Your task to perform on an android device: Open Google Chrome and open the bookmarks view Image 0: 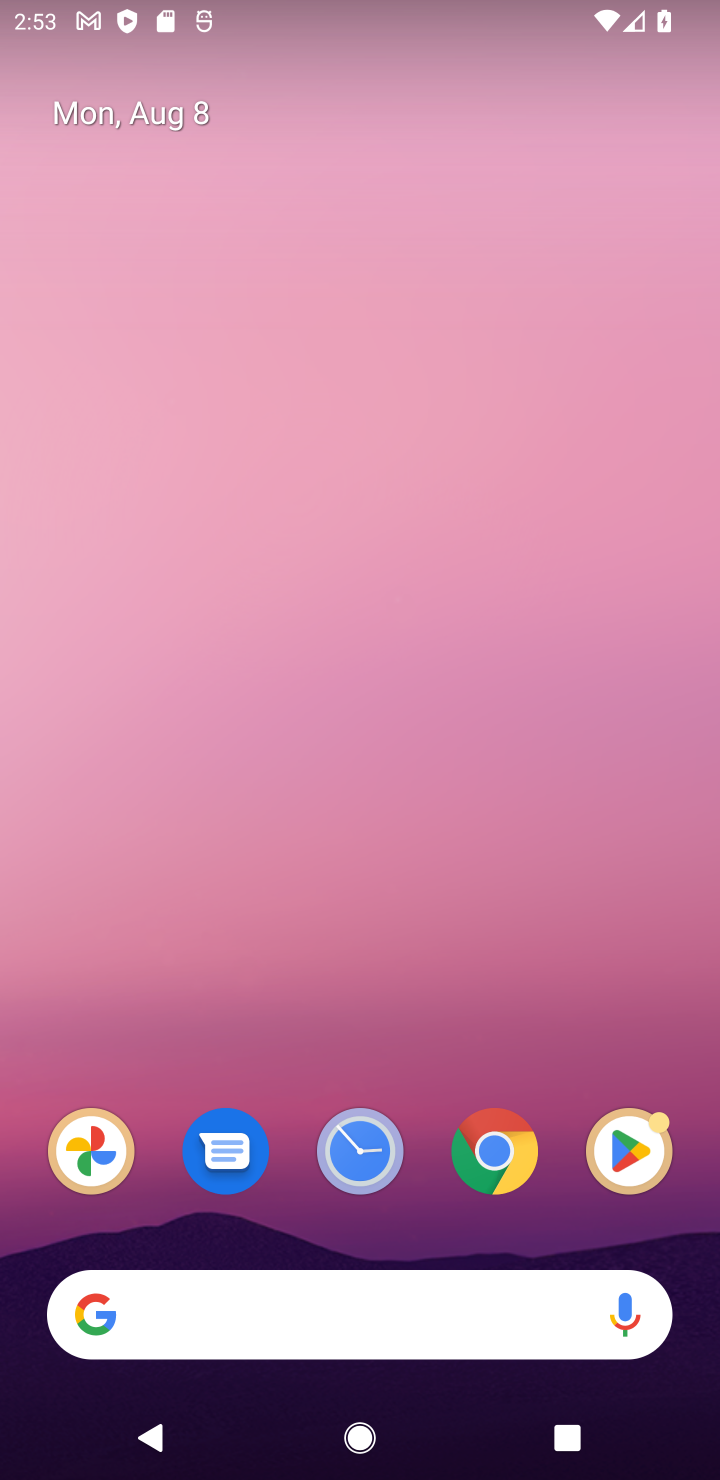
Step 0: press home button
Your task to perform on an android device: Open Google Chrome and open the bookmarks view Image 1: 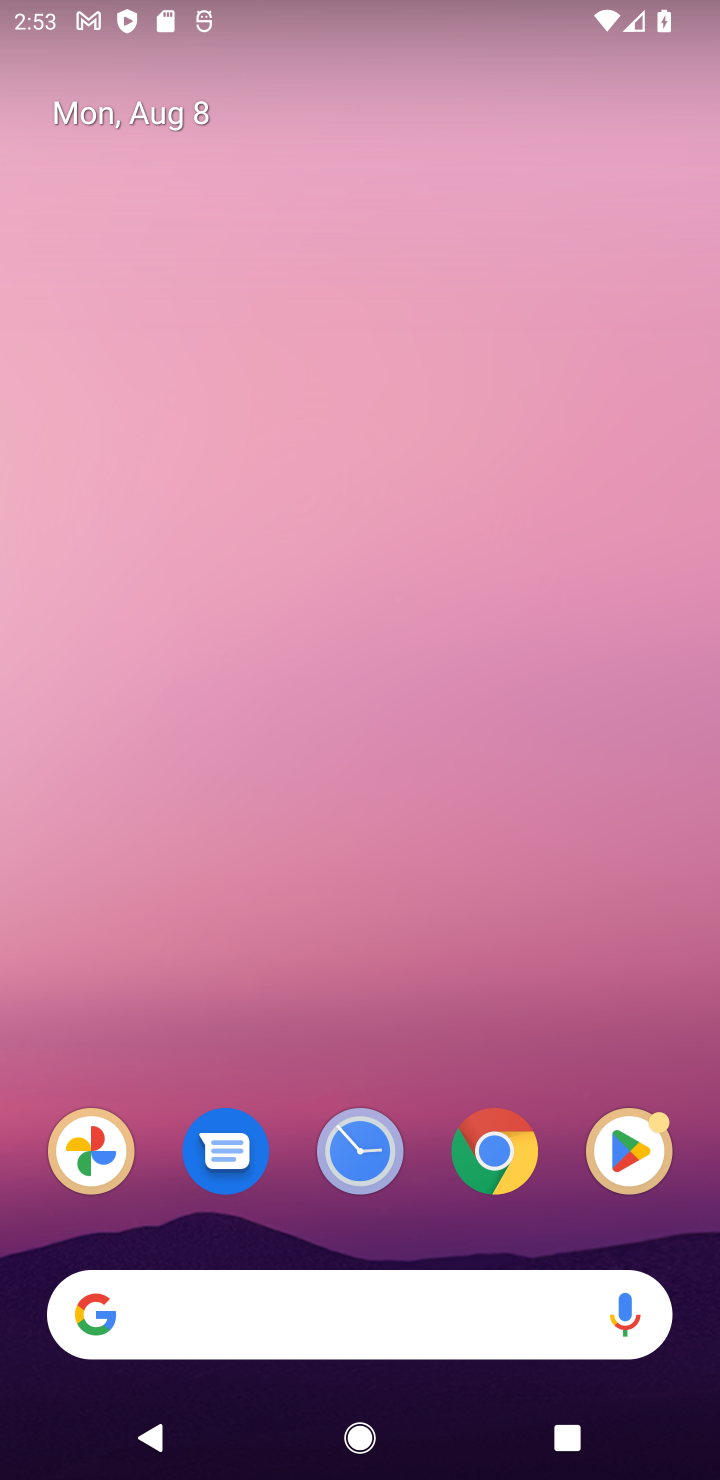
Step 1: click (498, 1141)
Your task to perform on an android device: Open Google Chrome and open the bookmarks view Image 2: 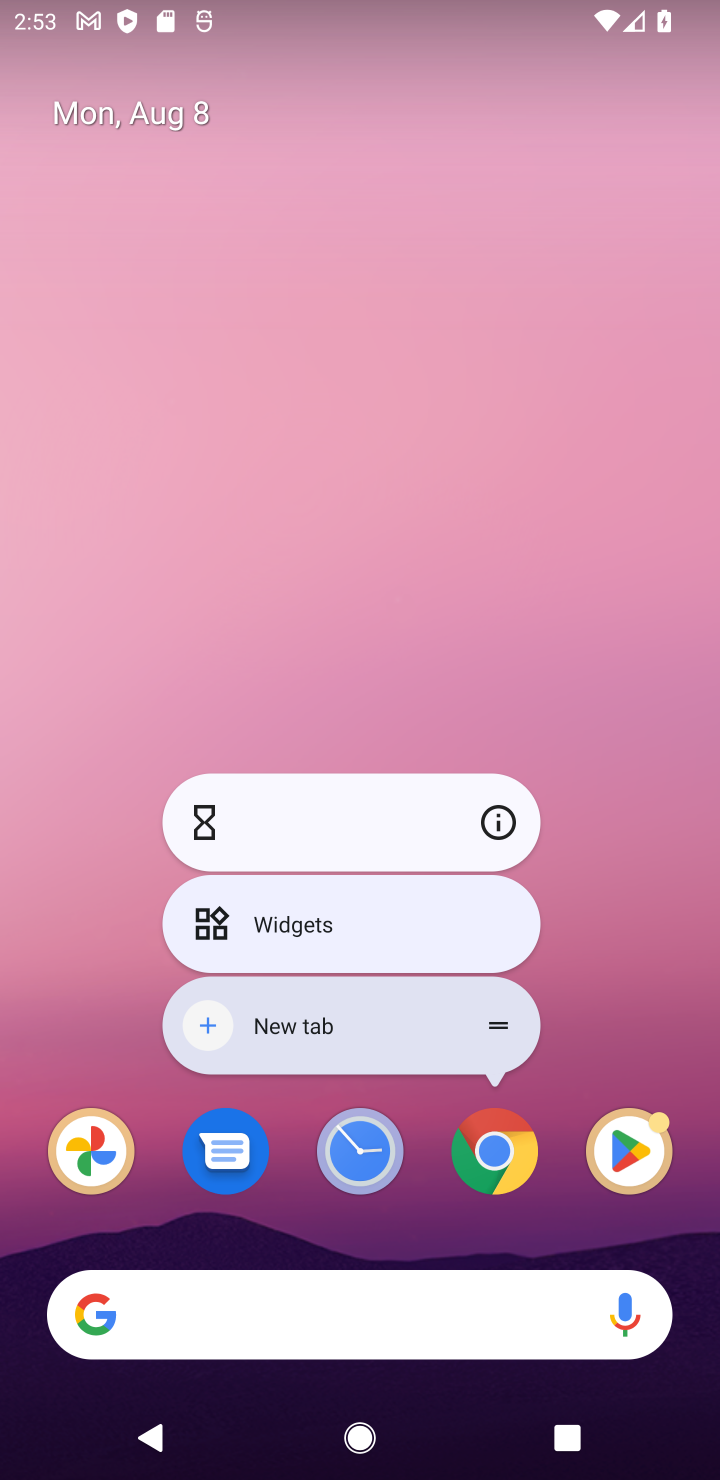
Step 2: click (518, 1173)
Your task to perform on an android device: Open Google Chrome and open the bookmarks view Image 3: 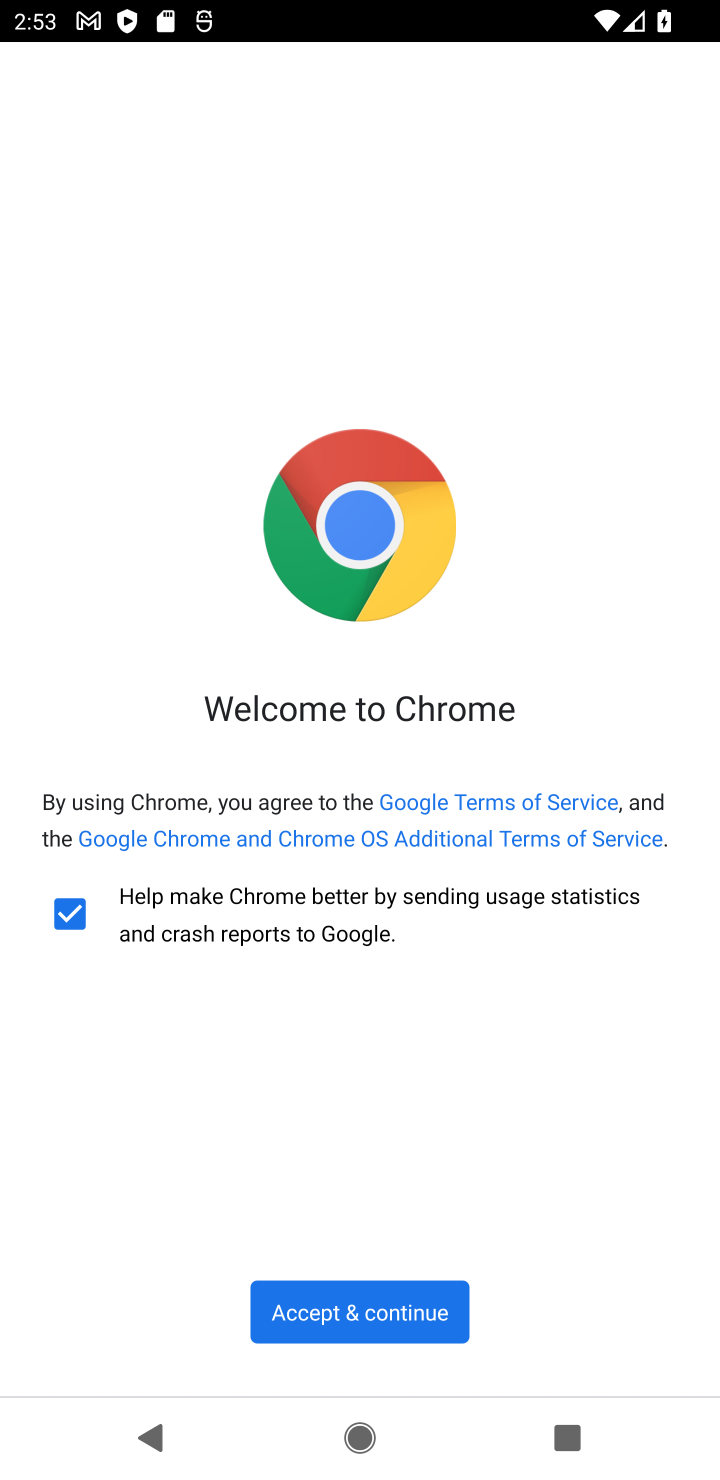
Step 3: click (362, 1328)
Your task to perform on an android device: Open Google Chrome and open the bookmarks view Image 4: 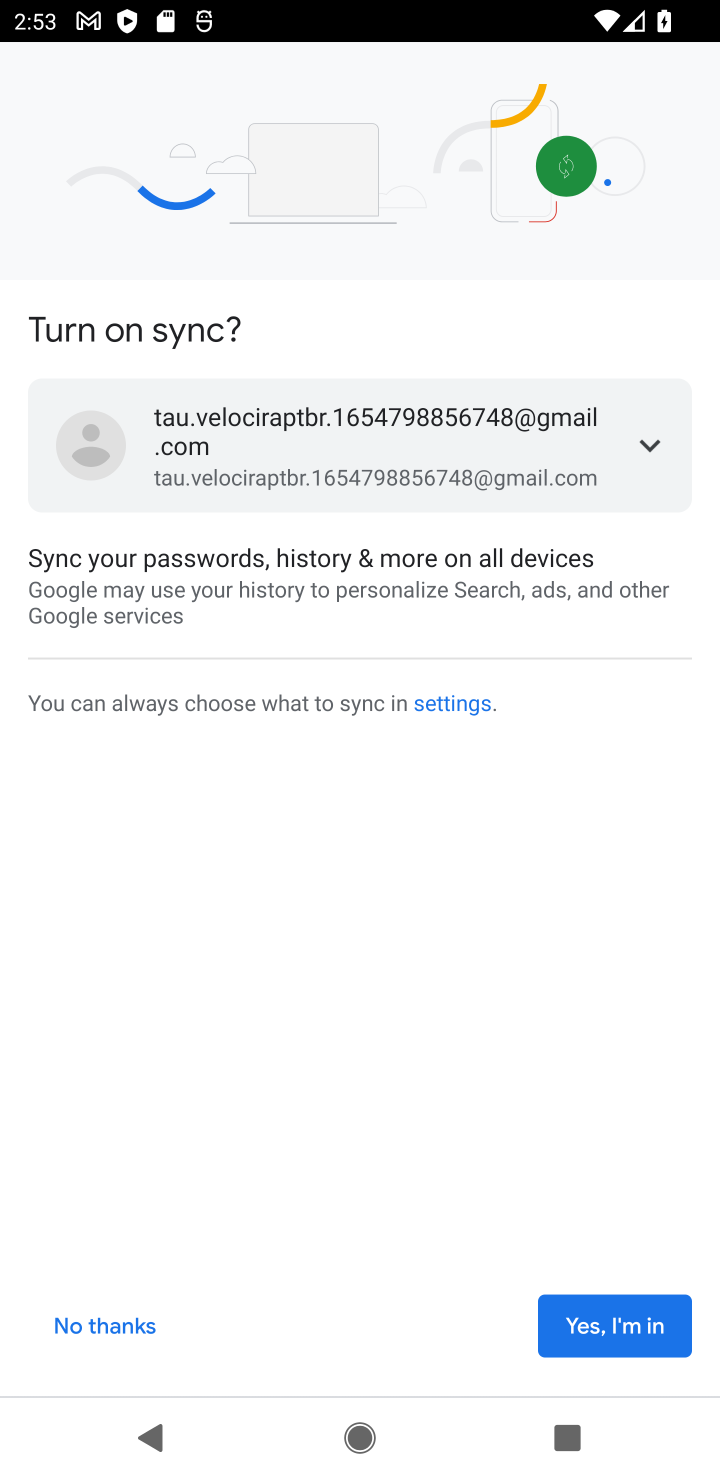
Step 4: click (600, 1332)
Your task to perform on an android device: Open Google Chrome and open the bookmarks view Image 5: 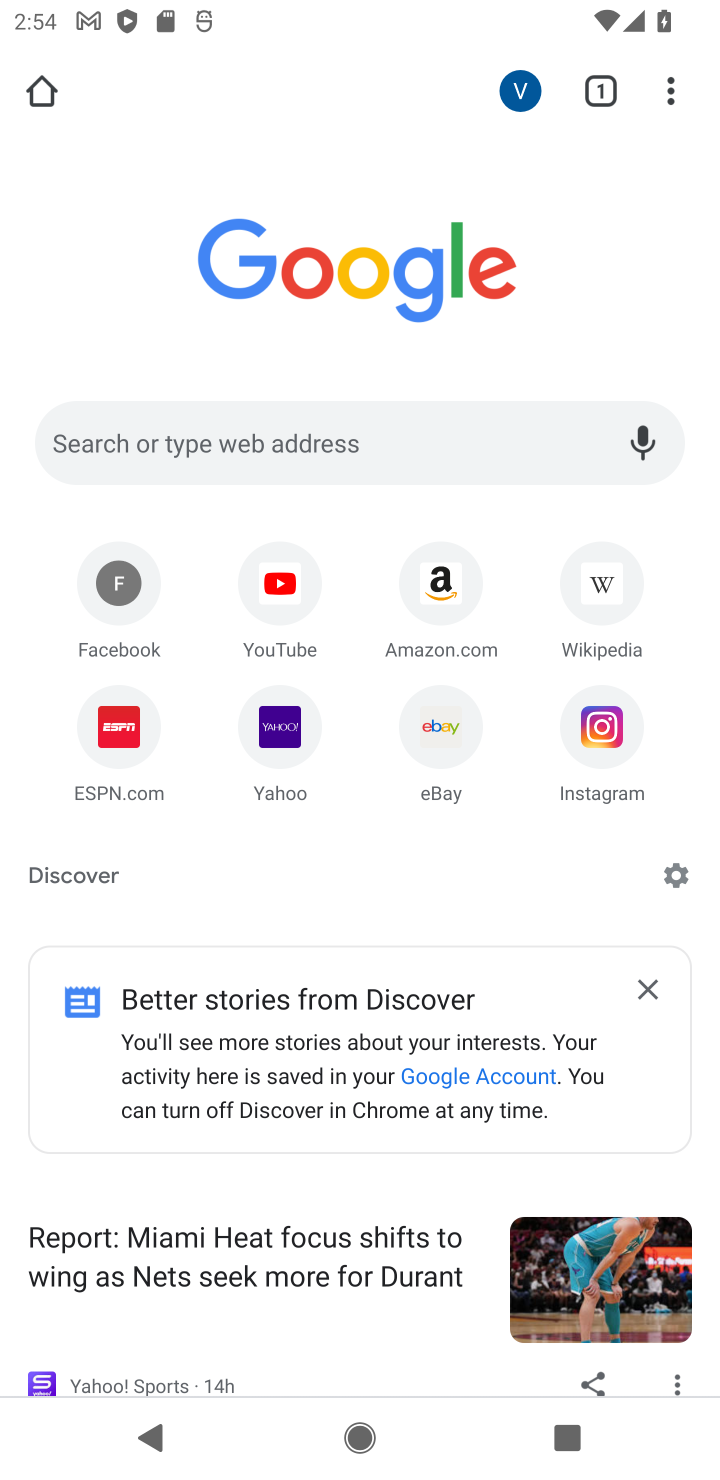
Step 5: click (664, 104)
Your task to perform on an android device: Open Google Chrome and open the bookmarks view Image 6: 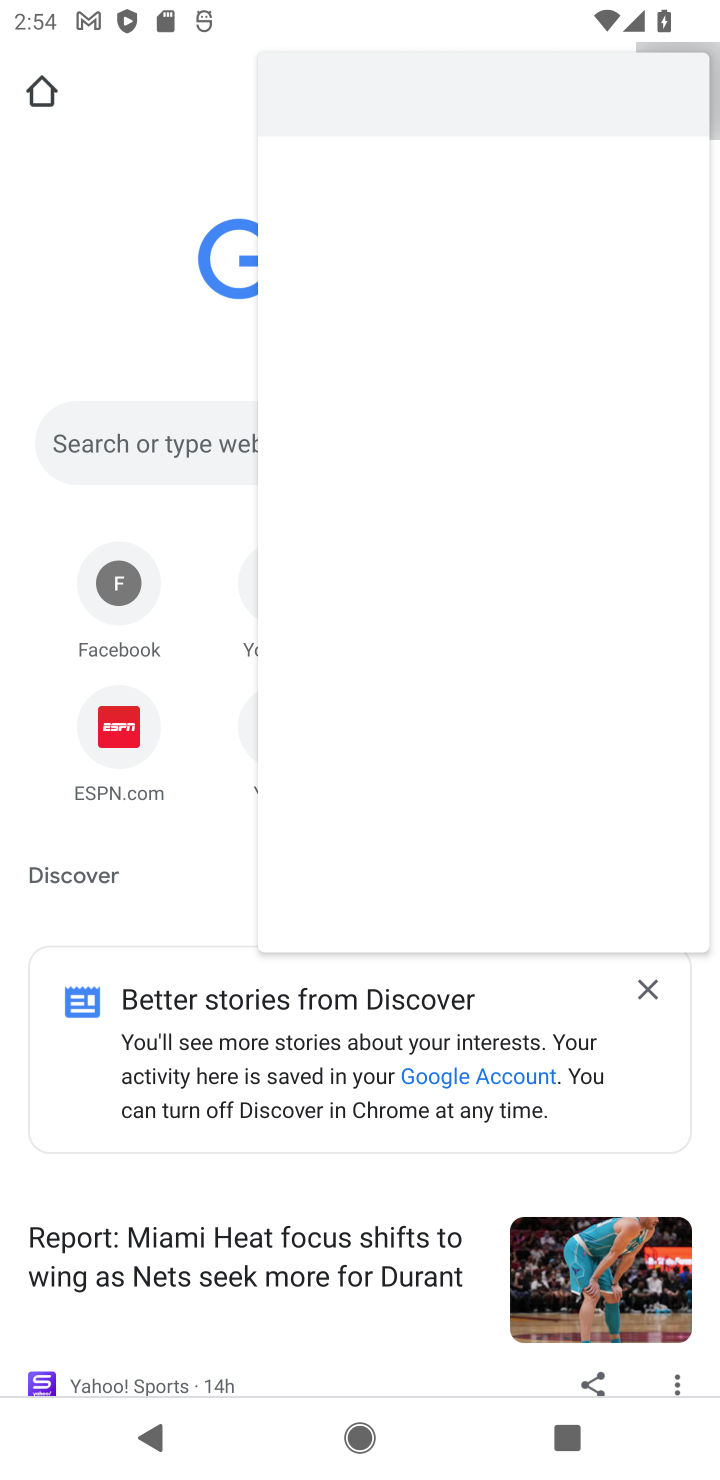
Step 6: click (517, 241)
Your task to perform on an android device: Open Google Chrome and open the bookmarks view Image 7: 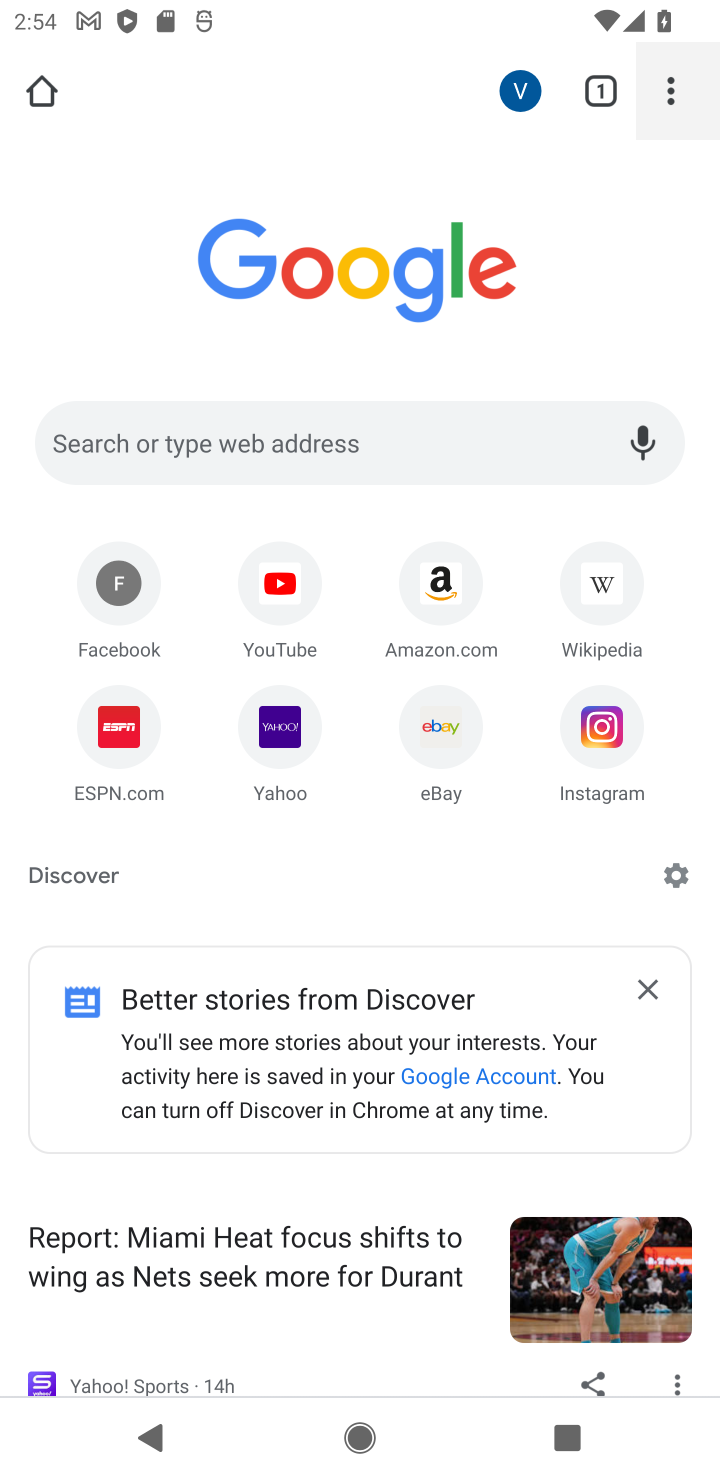
Step 7: click (416, 314)
Your task to perform on an android device: Open Google Chrome and open the bookmarks view Image 8: 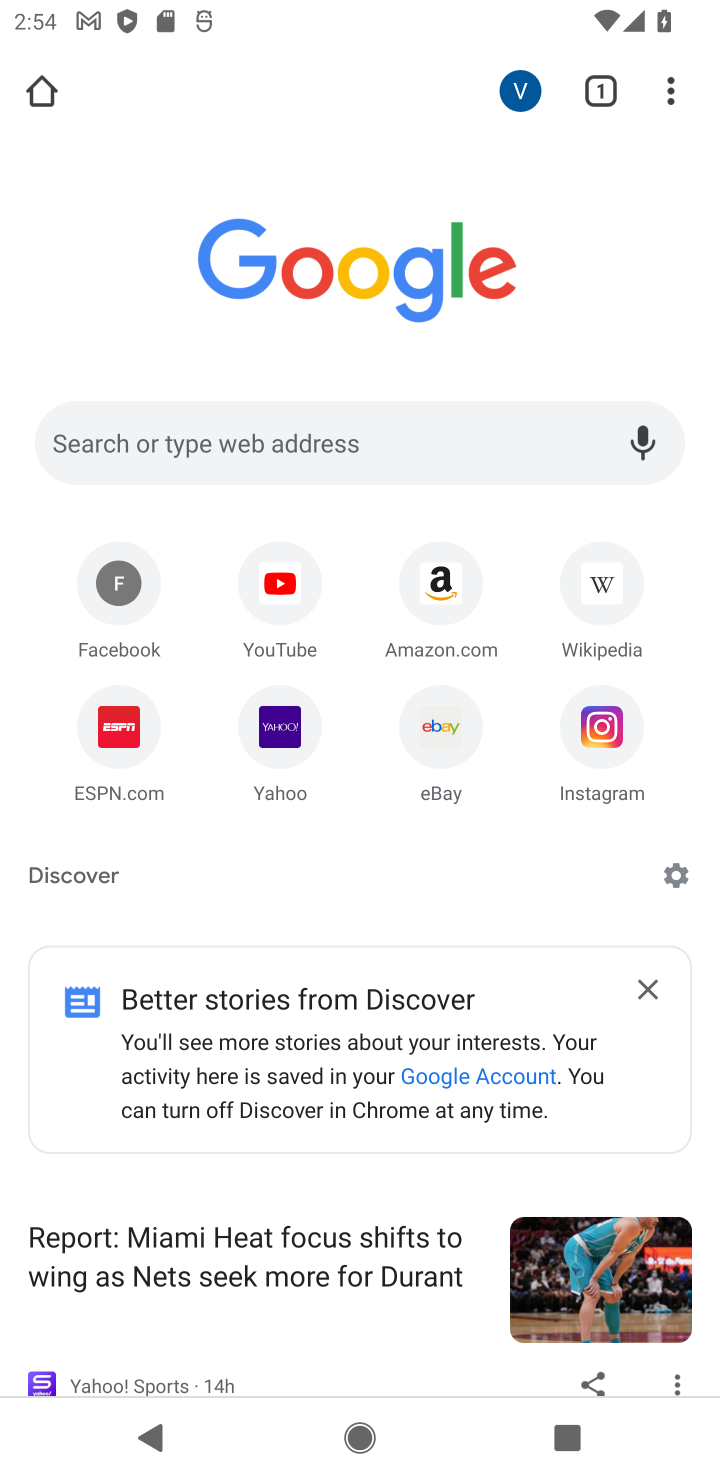
Step 8: click (662, 83)
Your task to perform on an android device: Open Google Chrome and open the bookmarks view Image 9: 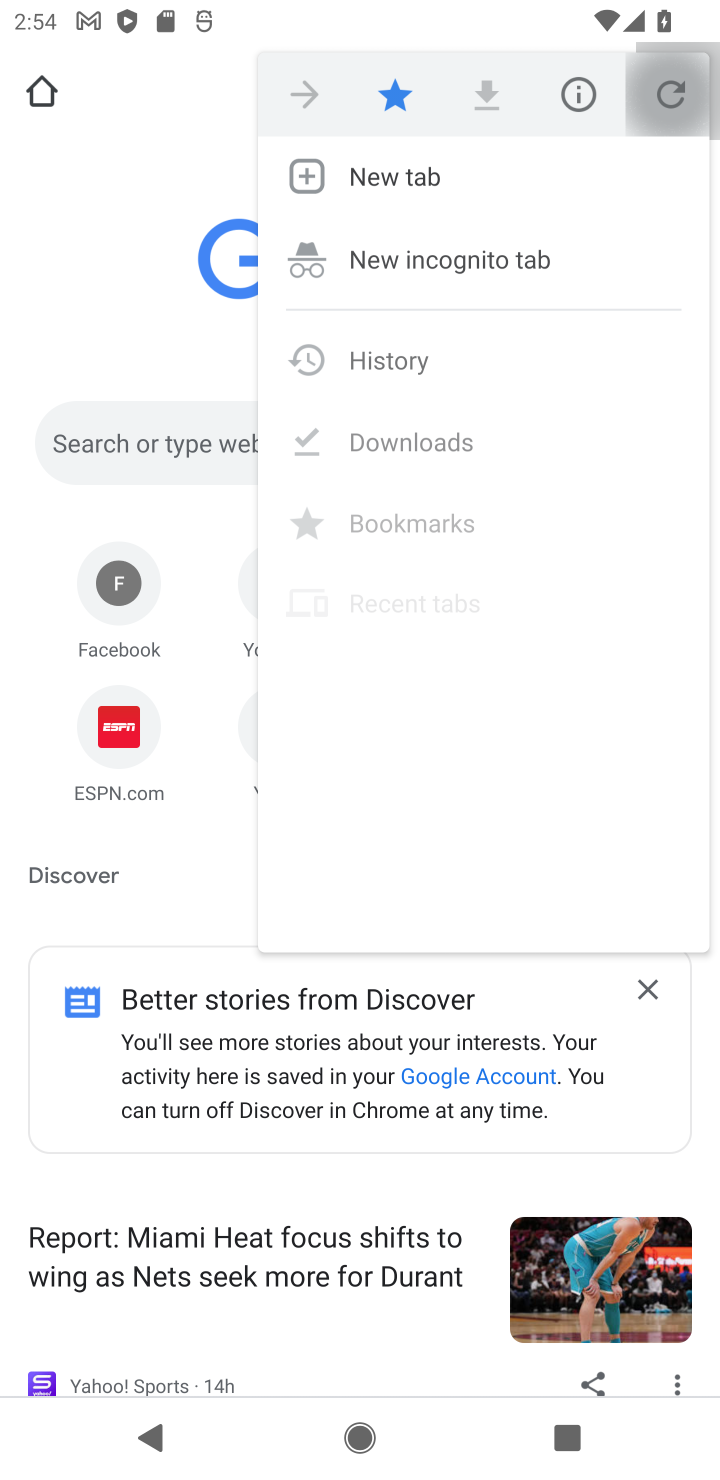
Step 9: drag from (662, 83) to (416, 308)
Your task to perform on an android device: Open Google Chrome and open the bookmarks view Image 10: 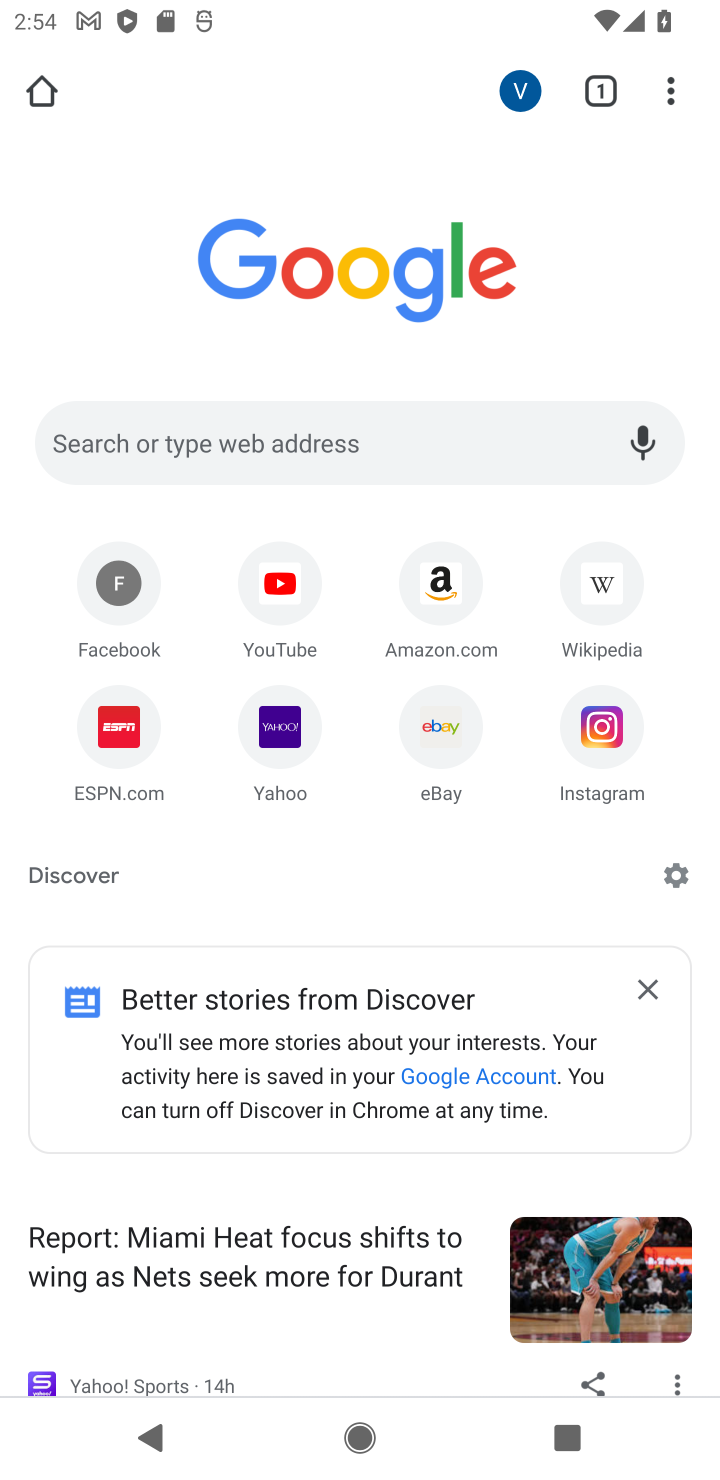
Step 10: click (678, 89)
Your task to perform on an android device: Open Google Chrome and open the bookmarks view Image 11: 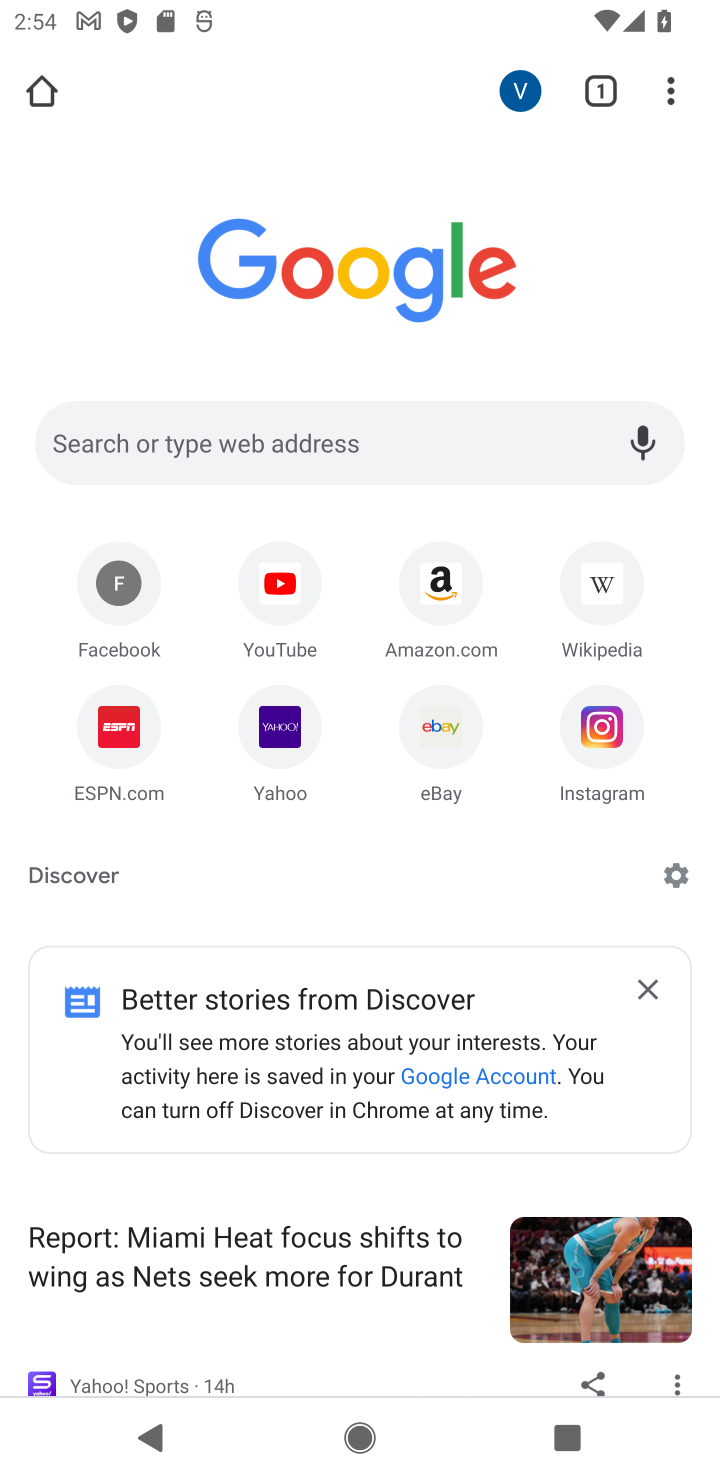
Step 11: click (678, 92)
Your task to perform on an android device: Open Google Chrome and open the bookmarks view Image 12: 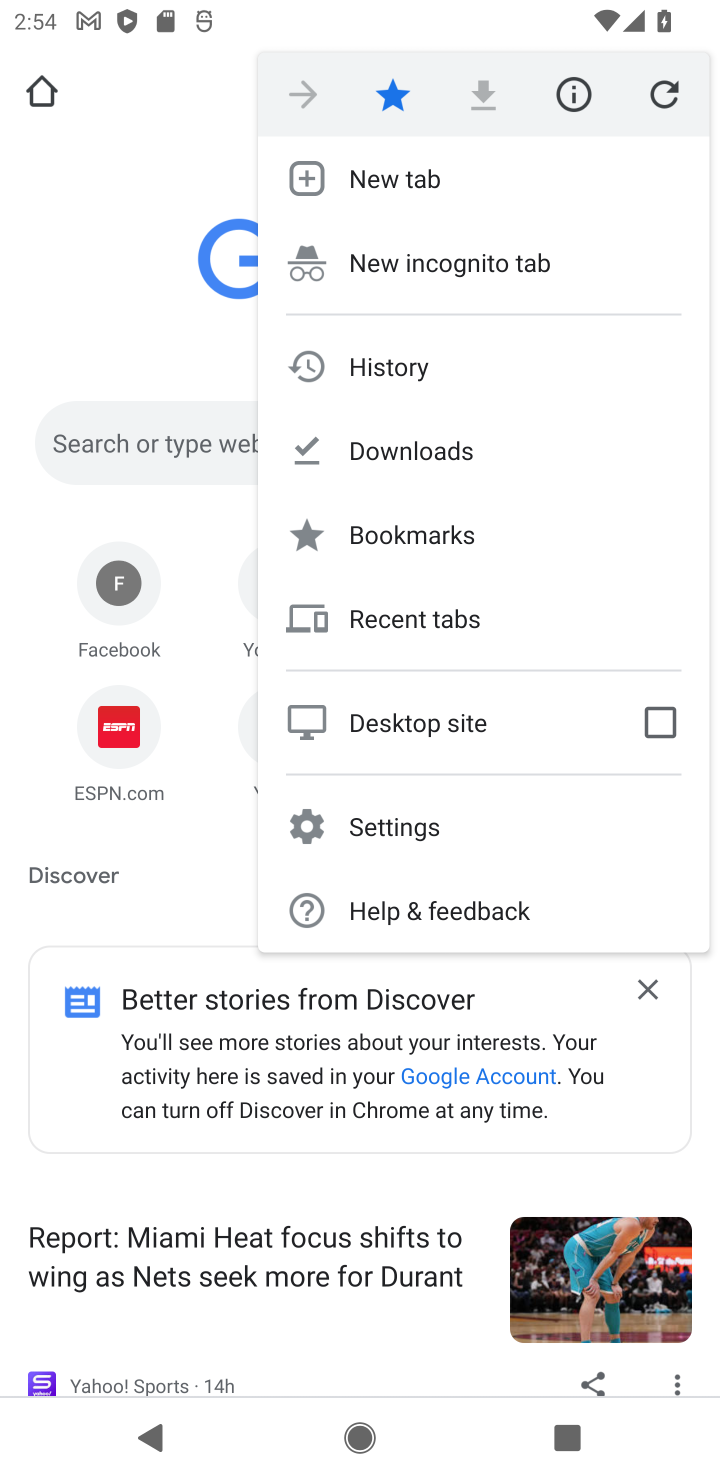
Step 12: click (343, 536)
Your task to perform on an android device: Open Google Chrome and open the bookmarks view Image 13: 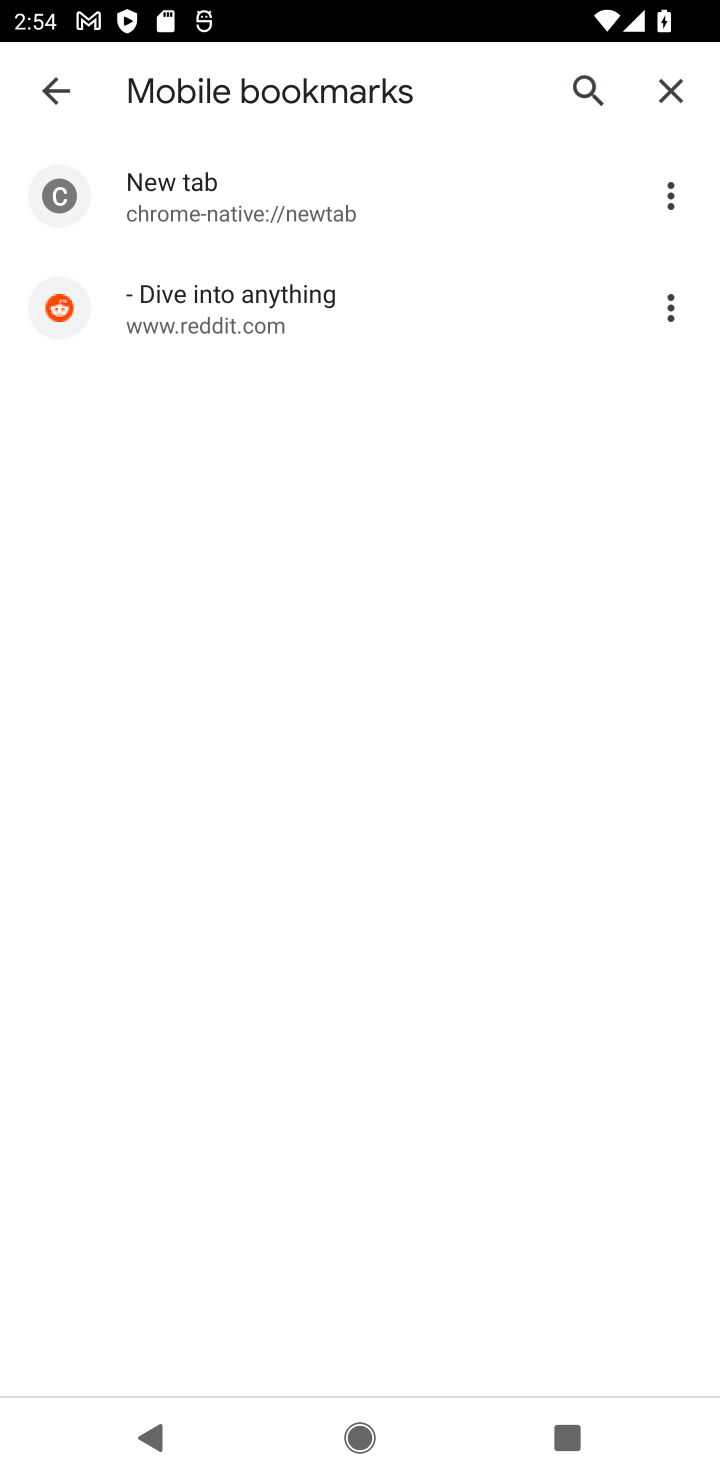
Step 13: task complete